Your task to perform on an android device: See recent photos Image 0: 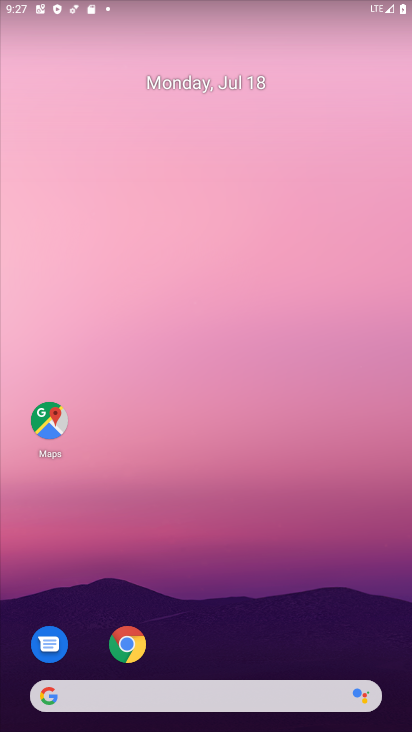
Step 0: drag from (236, 665) to (185, 62)
Your task to perform on an android device: See recent photos Image 1: 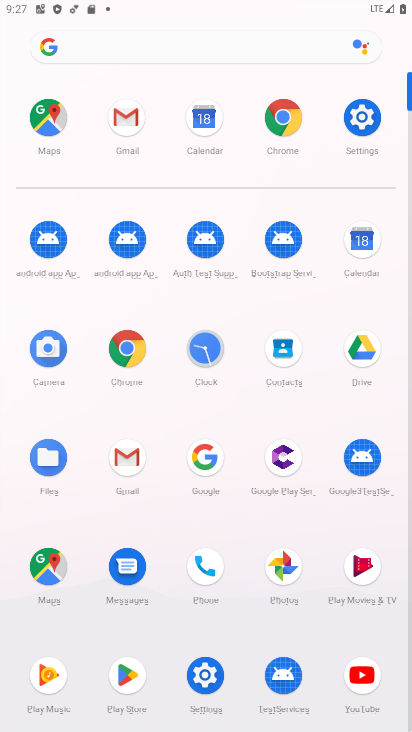
Step 1: click (270, 561)
Your task to perform on an android device: See recent photos Image 2: 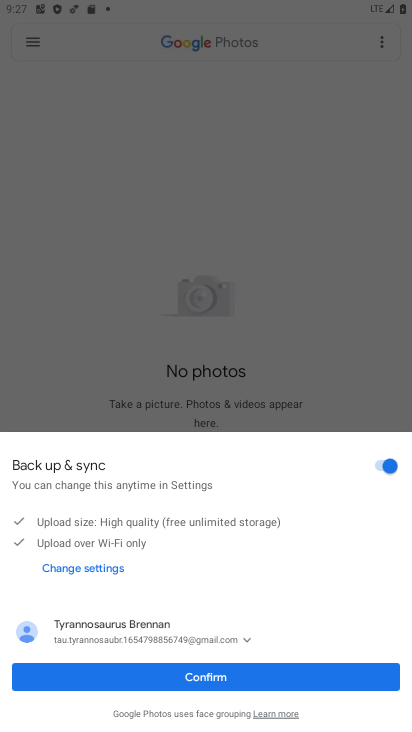
Step 2: click (240, 679)
Your task to perform on an android device: See recent photos Image 3: 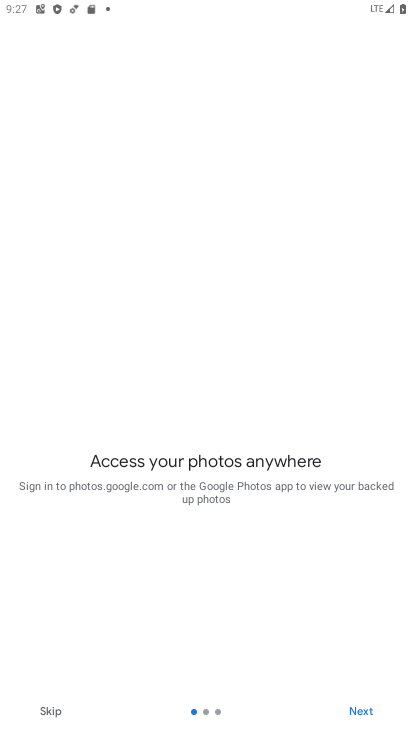
Step 3: click (56, 713)
Your task to perform on an android device: See recent photos Image 4: 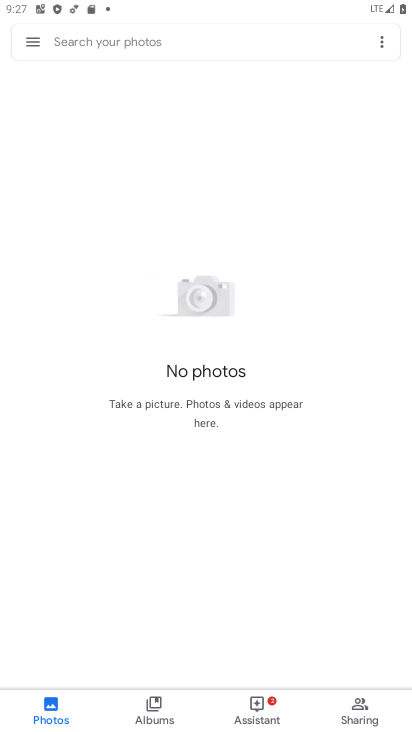
Step 4: task complete